Your task to perform on an android device: toggle data saver in the chrome app Image 0: 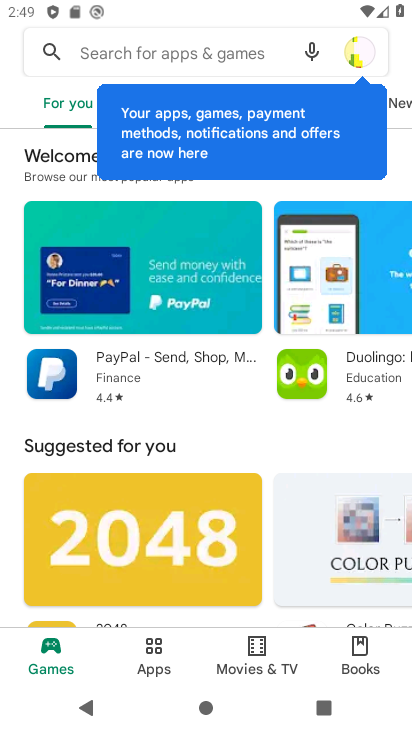
Step 0: press home button
Your task to perform on an android device: toggle data saver in the chrome app Image 1: 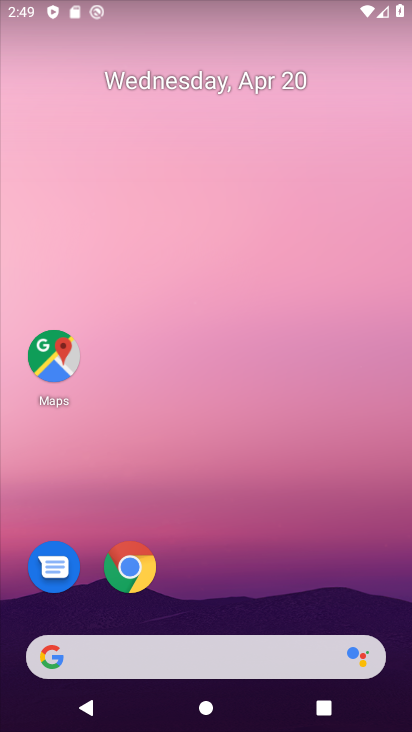
Step 1: drag from (252, 581) to (188, 130)
Your task to perform on an android device: toggle data saver in the chrome app Image 2: 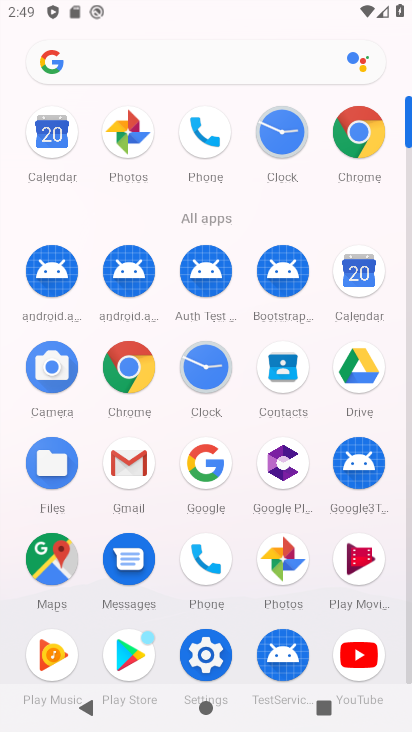
Step 2: click (370, 153)
Your task to perform on an android device: toggle data saver in the chrome app Image 3: 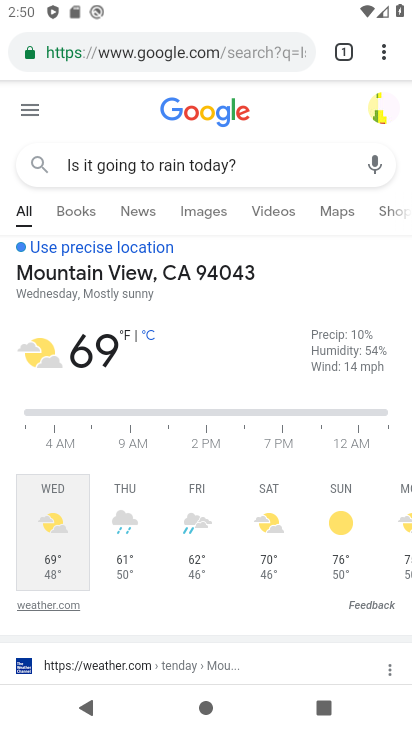
Step 3: click (383, 55)
Your task to perform on an android device: toggle data saver in the chrome app Image 4: 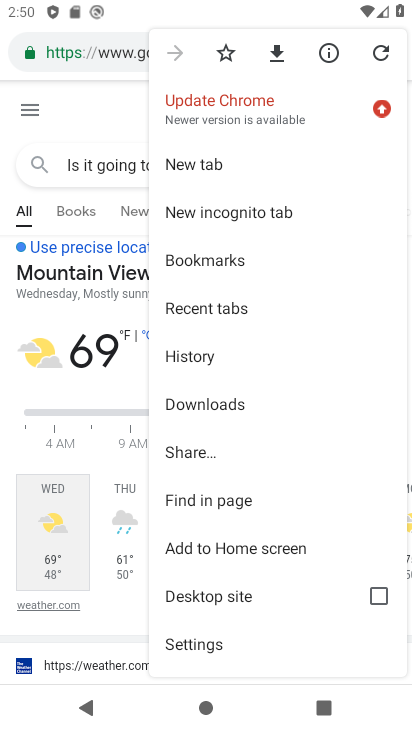
Step 4: click (233, 644)
Your task to perform on an android device: toggle data saver in the chrome app Image 5: 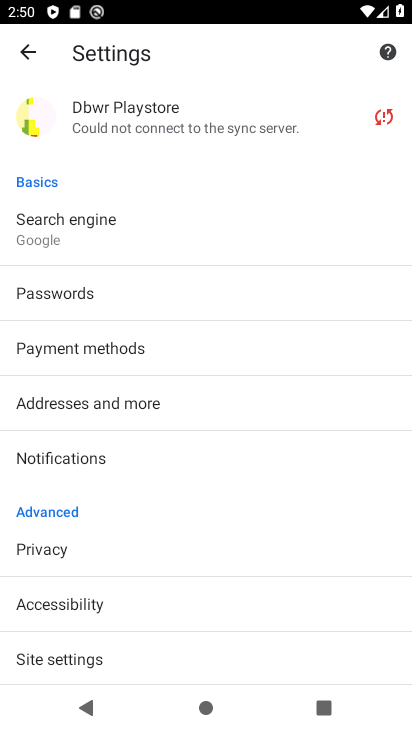
Step 5: click (166, 651)
Your task to perform on an android device: toggle data saver in the chrome app Image 6: 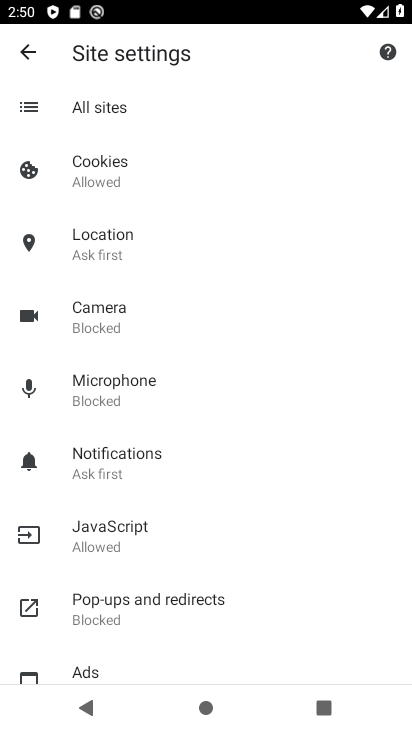
Step 6: click (87, 719)
Your task to perform on an android device: toggle data saver in the chrome app Image 7: 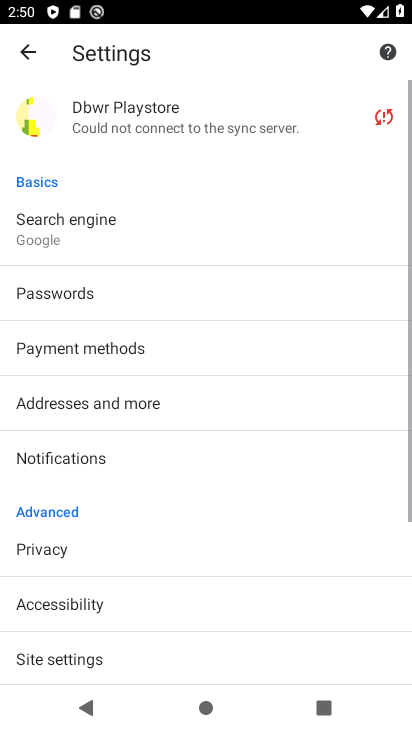
Step 7: drag from (351, 597) to (318, 321)
Your task to perform on an android device: toggle data saver in the chrome app Image 8: 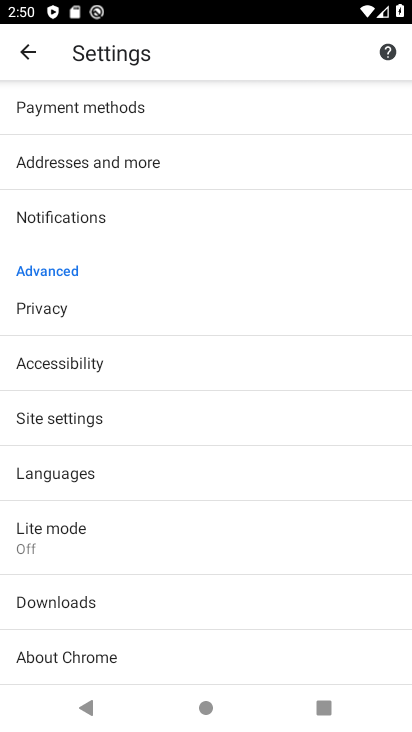
Step 8: click (282, 522)
Your task to perform on an android device: toggle data saver in the chrome app Image 9: 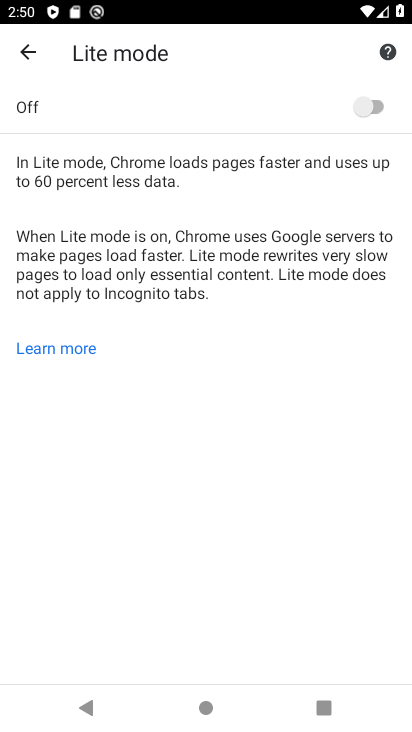
Step 9: click (367, 105)
Your task to perform on an android device: toggle data saver in the chrome app Image 10: 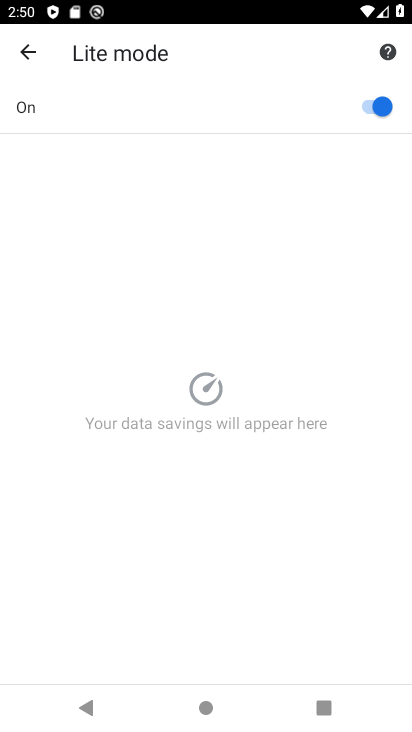
Step 10: task complete